Your task to perform on an android device: toggle translation in the chrome app Image 0: 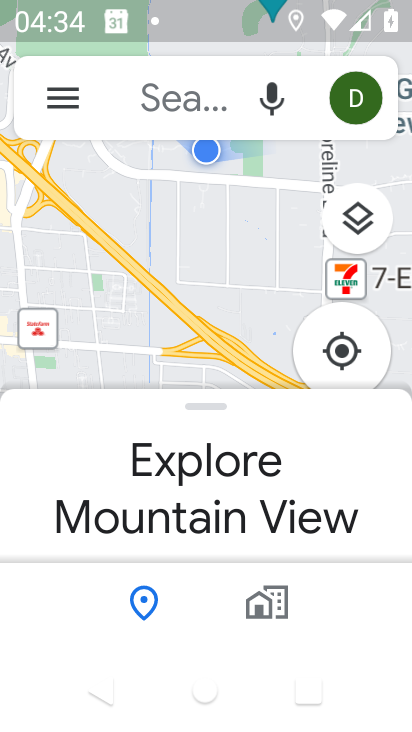
Step 0: press home button
Your task to perform on an android device: toggle translation in the chrome app Image 1: 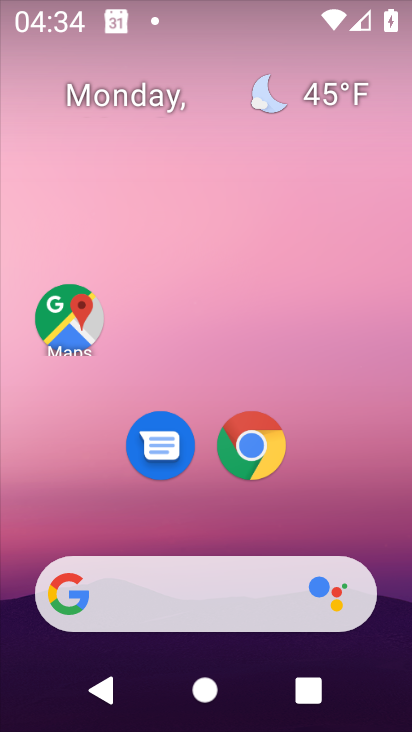
Step 1: click (222, 443)
Your task to perform on an android device: toggle translation in the chrome app Image 2: 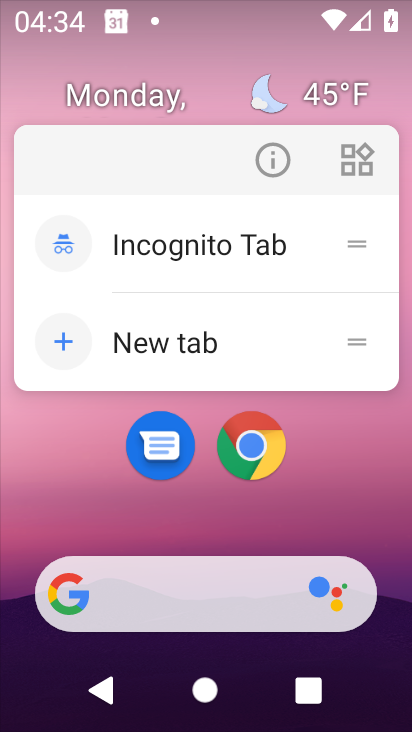
Step 2: click (223, 443)
Your task to perform on an android device: toggle translation in the chrome app Image 3: 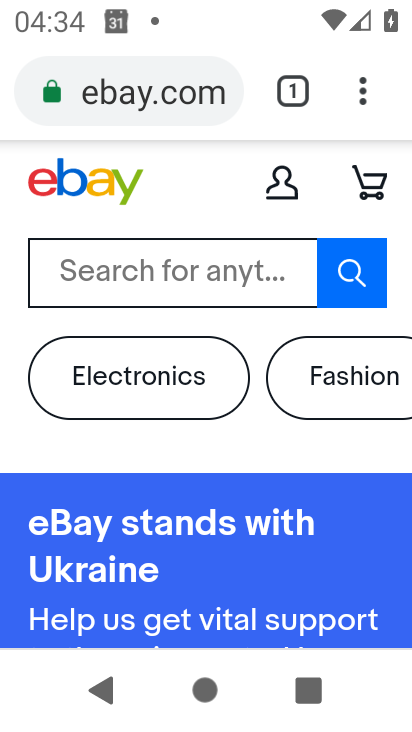
Step 3: click (360, 77)
Your task to perform on an android device: toggle translation in the chrome app Image 4: 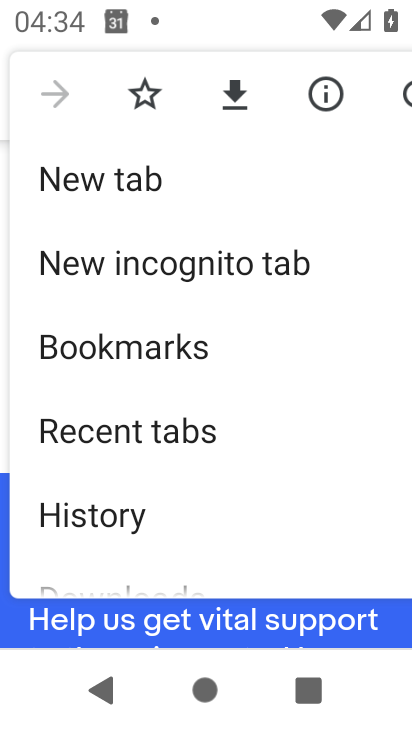
Step 4: drag from (203, 490) to (208, 155)
Your task to perform on an android device: toggle translation in the chrome app Image 5: 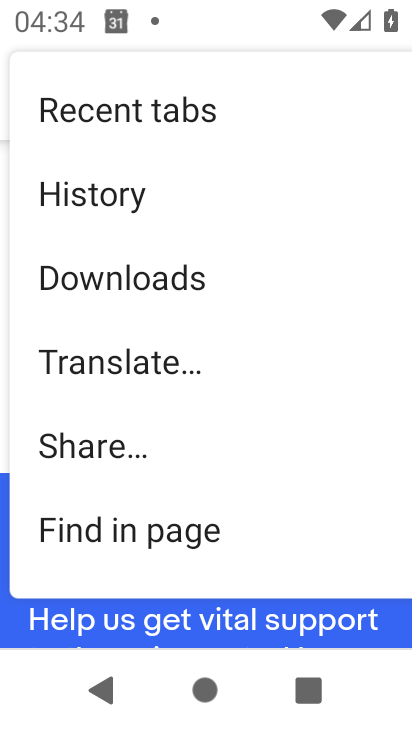
Step 5: drag from (121, 515) to (135, 126)
Your task to perform on an android device: toggle translation in the chrome app Image 6: 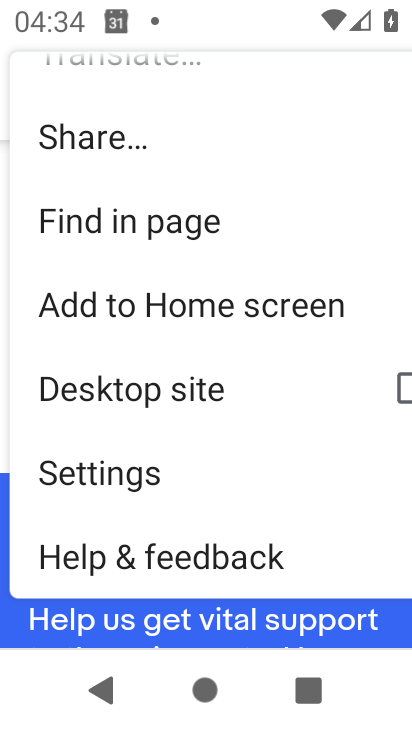
Step 6: click (181, 483)
Your task to perform on an android device: toggle translation in the chrome app Image 7: 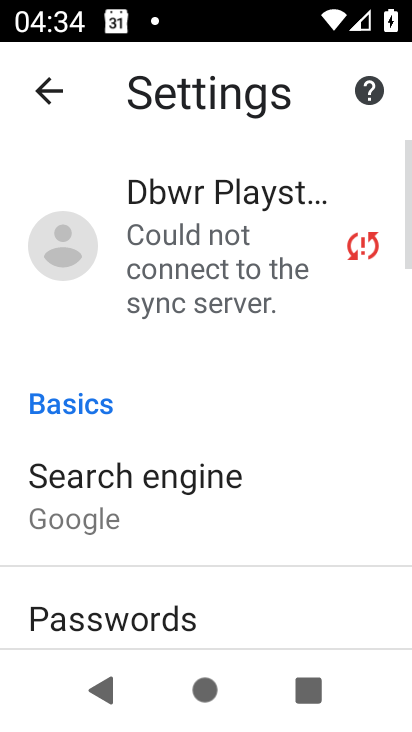
Step 7: drag from (198, 509) to (232, 189)
Your task to perform on an android device: toggle translation in the chrome app Image 8: 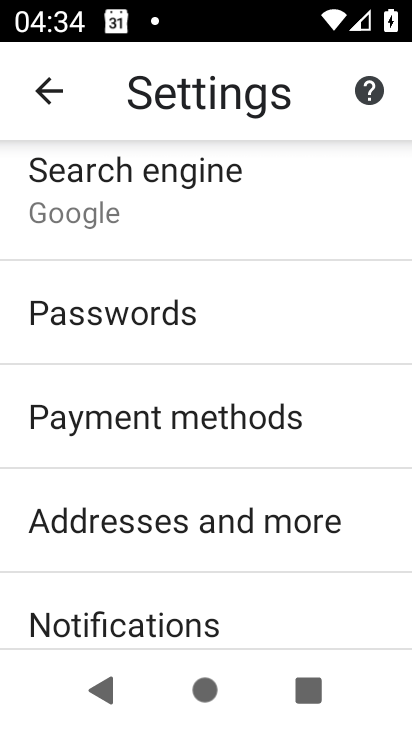
Step 8: drag from (172, 568) to (220, 89)
Your task to perform on an android device: toggle translation in the chrome app Image 9: 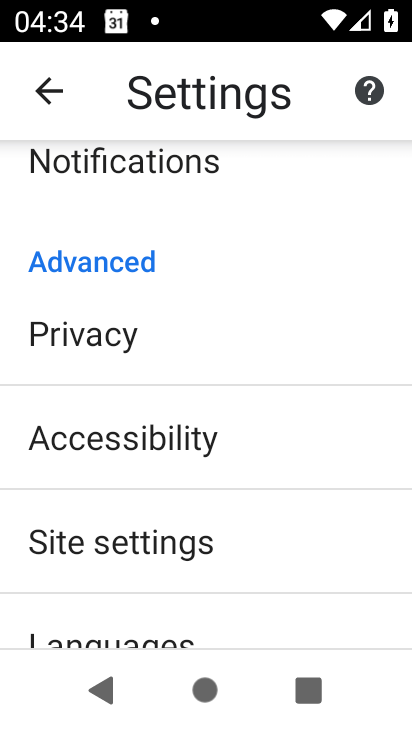
Step 9: drag from (160, 527) to (210, 205)
Your task to perform on an android device: toggle translation in the chrome app Image 10: 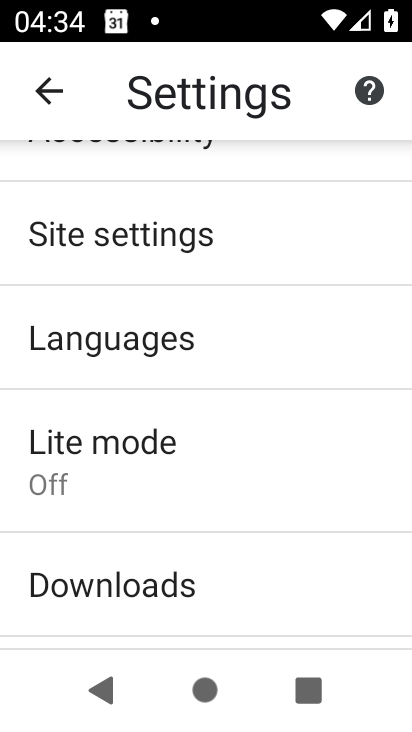
Step 10: click (185, 357)
Your task to perform on an android device: toggle translation in the chrome app Image 11: 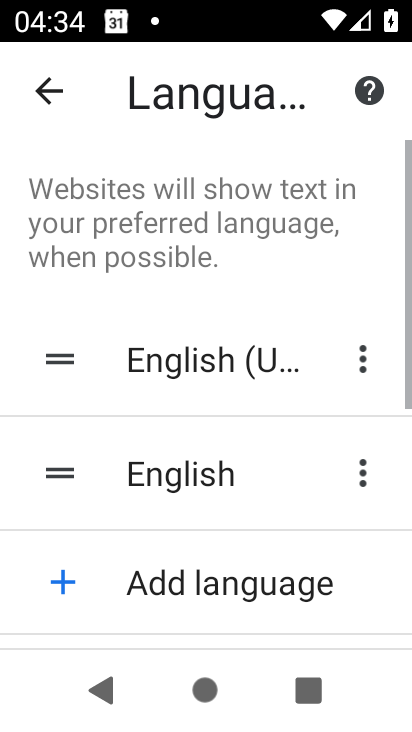
Step 11: drag from (259, 553) to (250, 201)
Your task to perform on an android device: toggle translation in the chrome app Image 12: 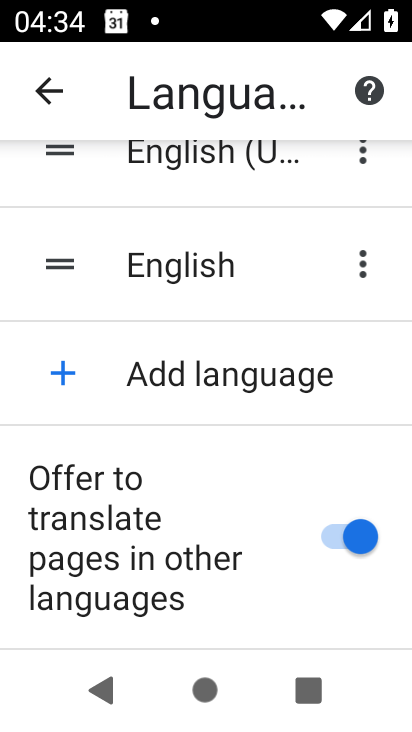
Step 12: click (333, 533)
Your task to perform on an android device: toggle translation in the chrome app Image 13: 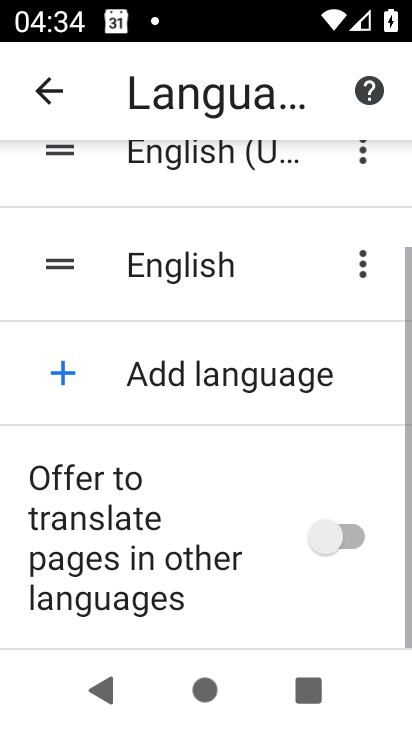
Step 13: task complete